Your task to perform on an android device: Open Maps and search for coffee Image 0: 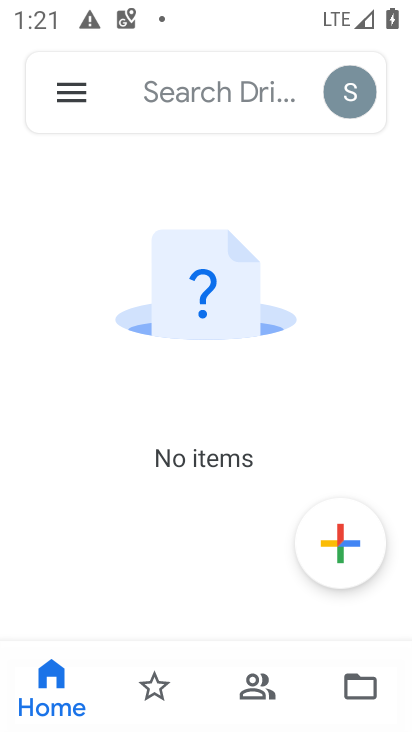
Step 0: press back button
Your task to perform on an android device: Open Maps and search for coffee Image 1: 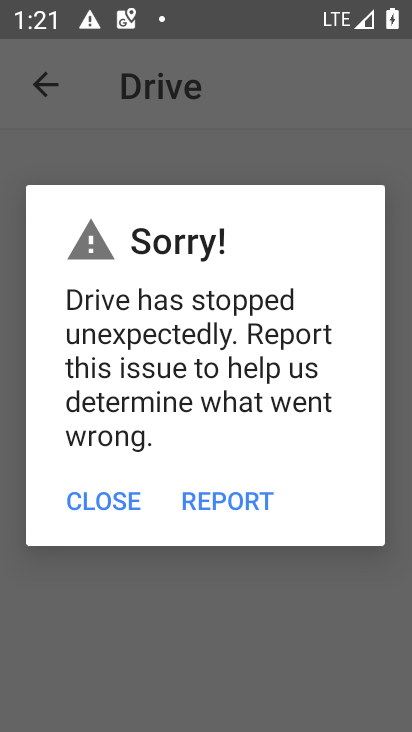
Step 1: press back button
Your task to perform on an android device: Open Maps and search for coffee Image 2: 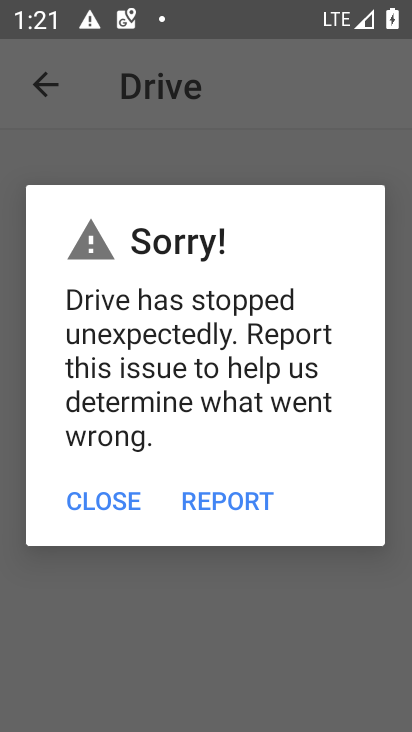
Step 2: press home button
Your task to perform on an android device: Open Maps and search for coffee Image 3: 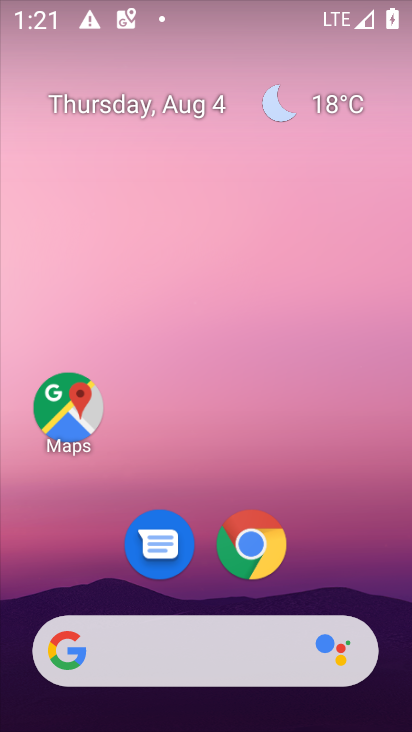
Step 3: click (60, 411)
Your task to perform on an android device: Open Maps and search for coffee Image 4: 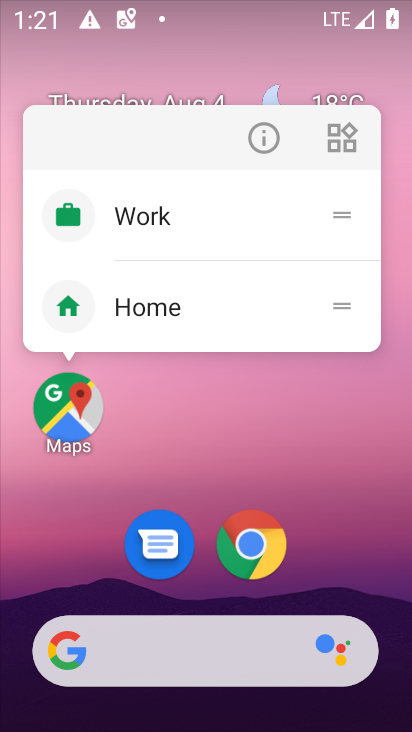
Step 4: click (68, 397)
Your task to perform on an android device: Open Maps and search for coffee Image 5: 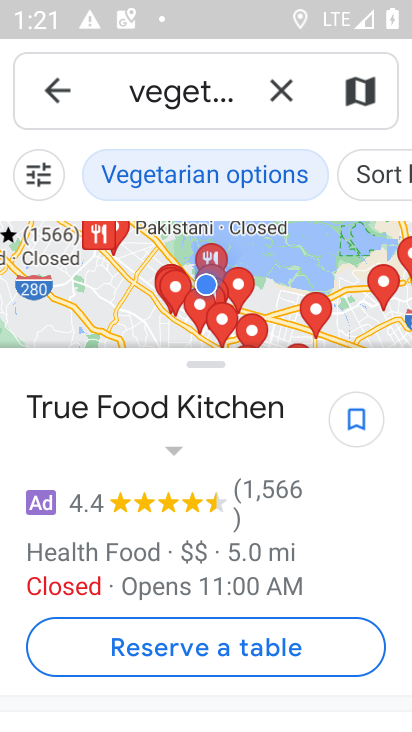
Step 5: click (276, 89)
Your task to perform on an android device: Open Maps and search for coffee Image 6: 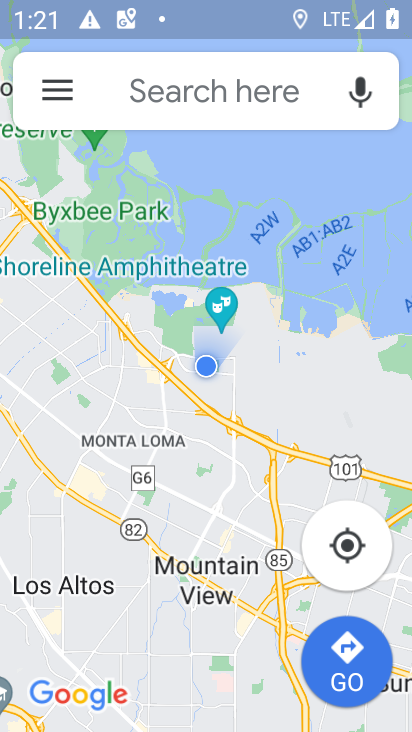
Step 6: click (192, 103)
Your task to perform on an android device: Open Maps and search for coffee Image 7: 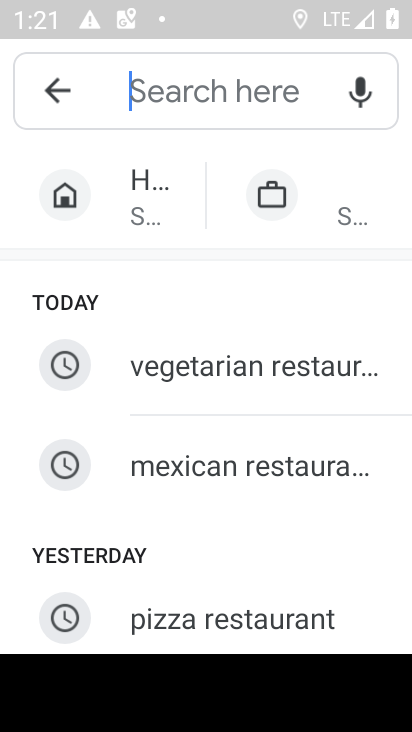
Step 7: type "coffee"
Your task to perform on an android device: Open Maps and search for coffee Image 8: 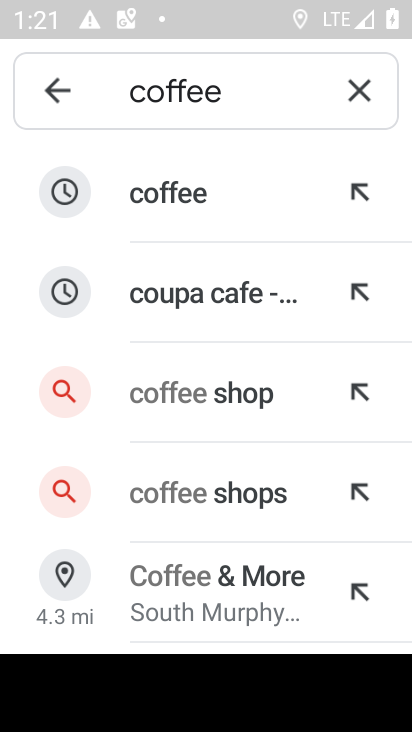
Step 8: click (149, 201)
Your task to perform on an android device: Open Maps and search for coffee Image 9: 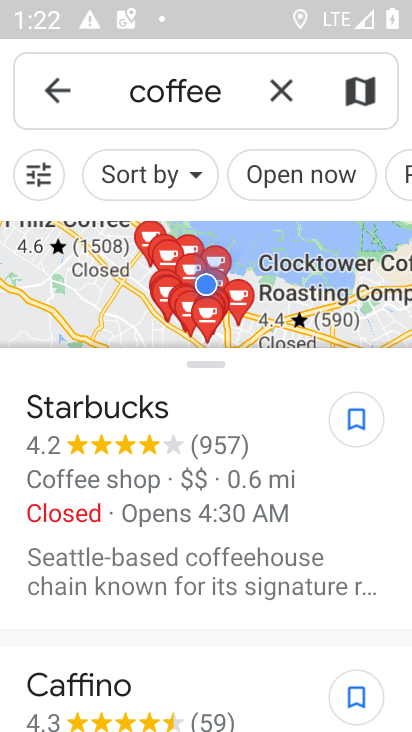
Step 9: task complete